Your task to perform on an android device: Is it going to rain this weekend? Image 0: 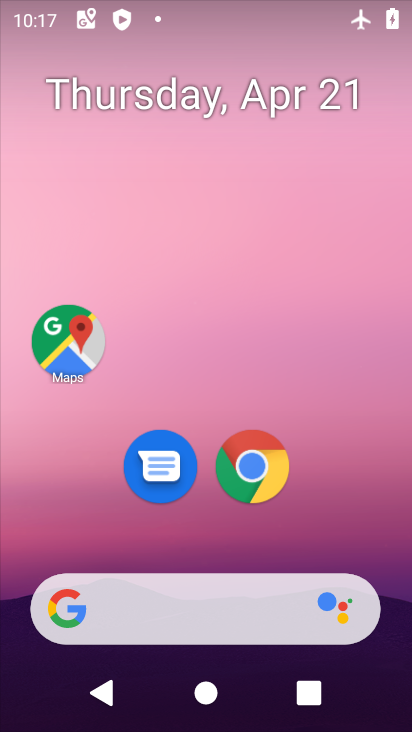
Step 0: drag from (342, 552) to (282, 51)
Your task to perform on an android device: Is it going to rain this weekend? Image 1: 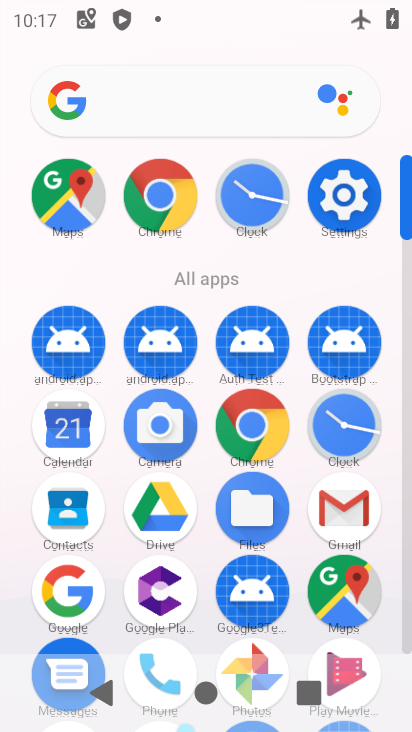
Step 1: click (268, 432)
Your task to perform on an android device: Is it going to rain this weekend? Image 2: 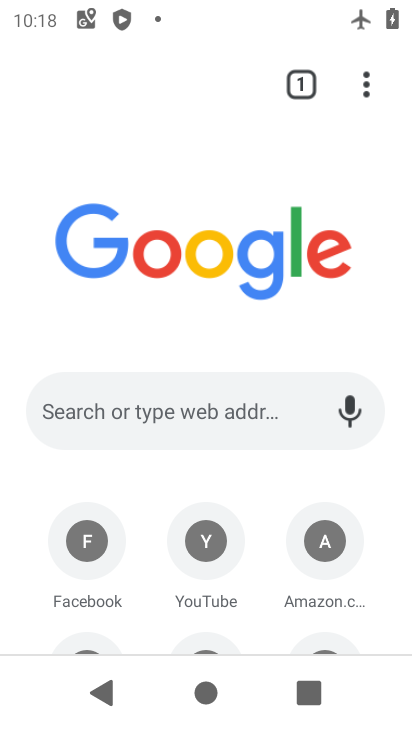
Step 2: click (219, 395)
Your task to perform on an android device: Is it going to rain this weekend? Image 3: 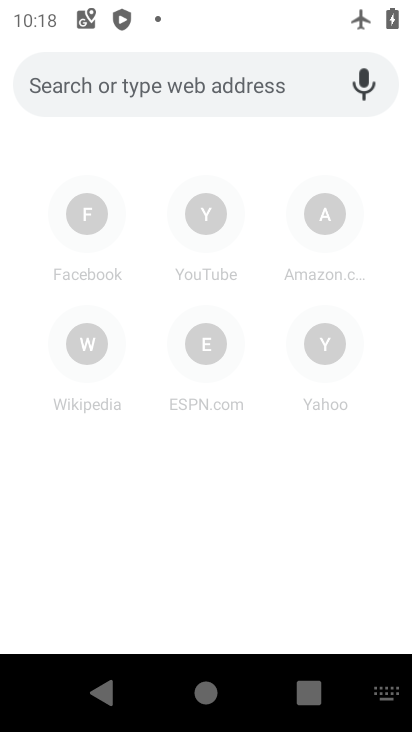
Step 3: type "weather"
Your task to perform on an android device: Is it going to rain this weekend? Image 4: 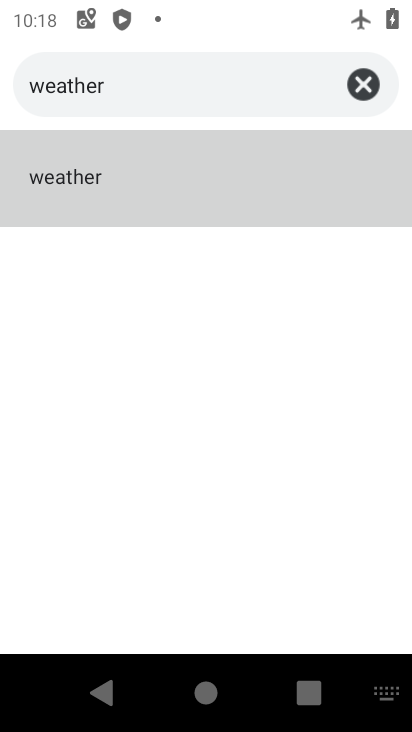
Step 4: click (61, 175)
Your task to perform on an android device: Is it going to rain this weekend? Image 5: 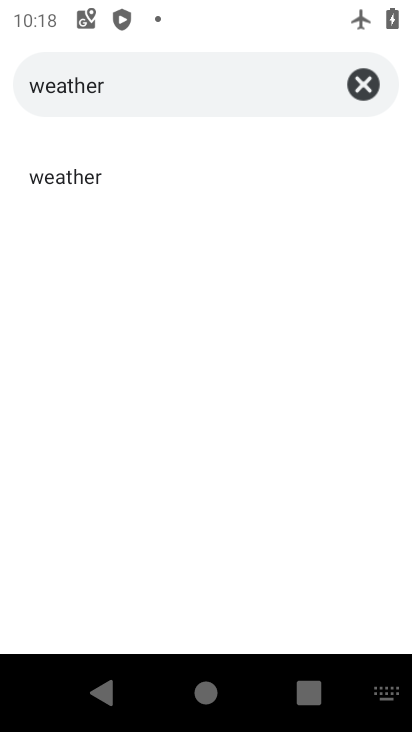
Step 5: click (75, 176)
Your task to perform on an android device: Is it going to rain this weekend? Image 6: 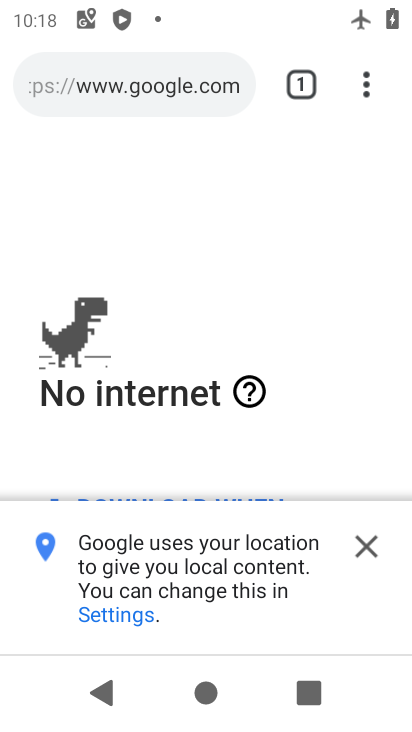
Step 6: task complete